Your task to perform on an android device: change your default location settings in chrome Image 0: 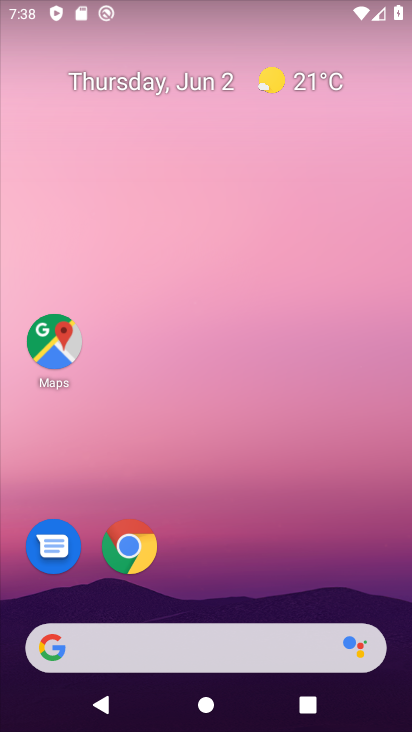
Step 0: drag from (339, 565) to (350, 242)
Your task to perform on an android device: change your default location settings in chrome Image 1: 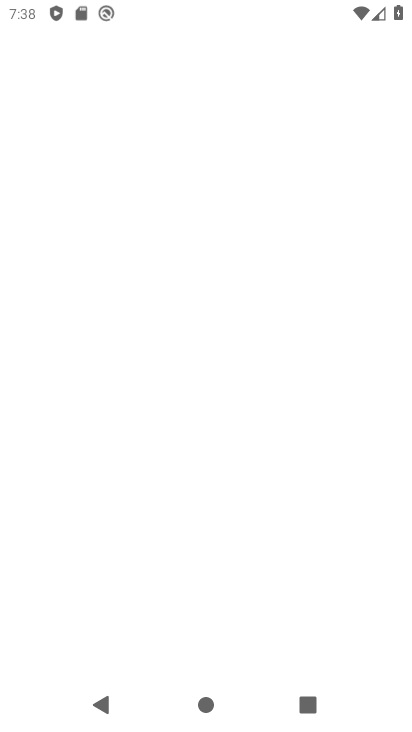
Step 1: press home button
Your task to perform on an android device: change your default location settings in chrome Image 2: 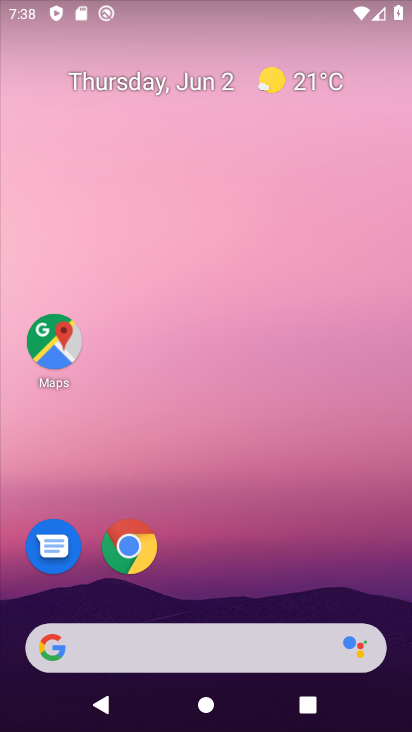
Step 2: drag from (341, 401) to (353, 94)
Your task to perform on an android device: change your default location settings in chrome Image 3: 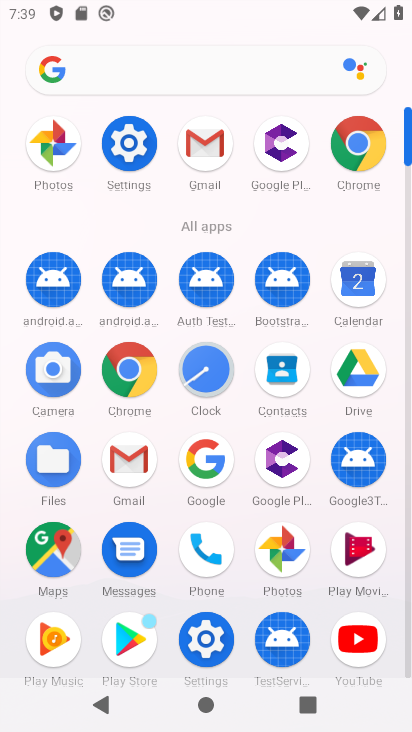
Step 3: click (139, 386)
Your task to perform on an android device: change your default location settings in chrome Image 4: 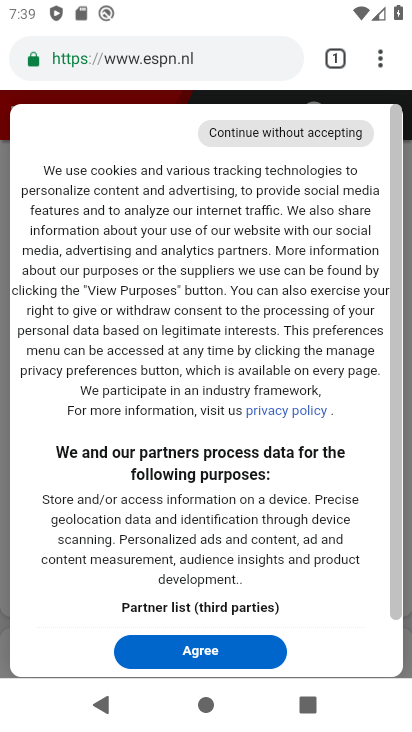
Step 4: drag from (386, 75) to (256, 573)
Your task to perform on an android device: change your default location settings in chrome Image 5: 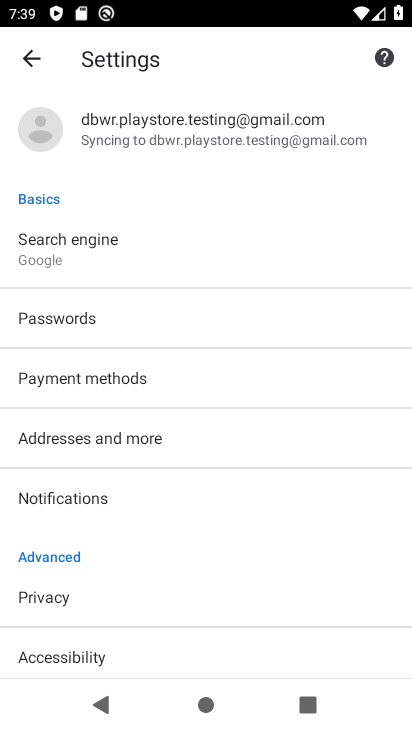
Step 5: drag from (236, 596) to (299, 338)
Your task to perform on an android device: change your default location settings in chrome Image 6: 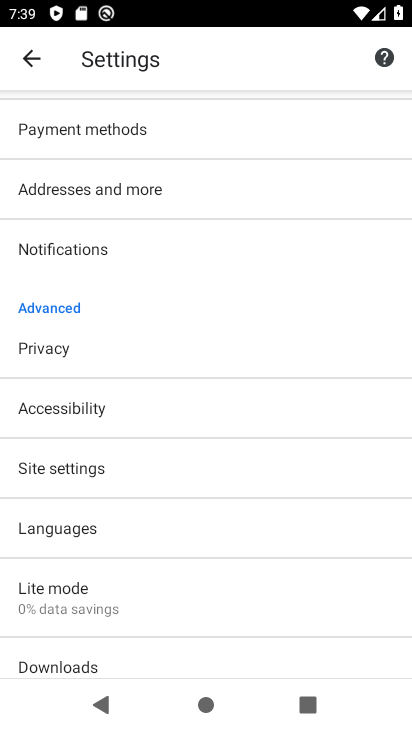
Step 6: click (151, 477)
Your task to perform on an android device: change your default location settings in chrome Image 7: 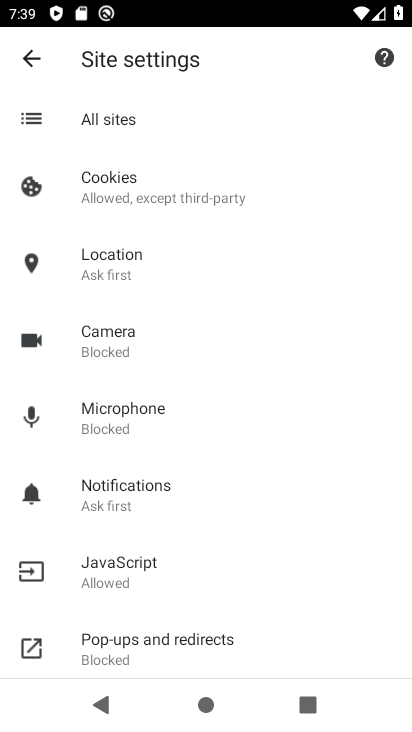
Step 7: click (159, 271)
Your task to perform on an android device: change your default location settings in chrome Image 8: 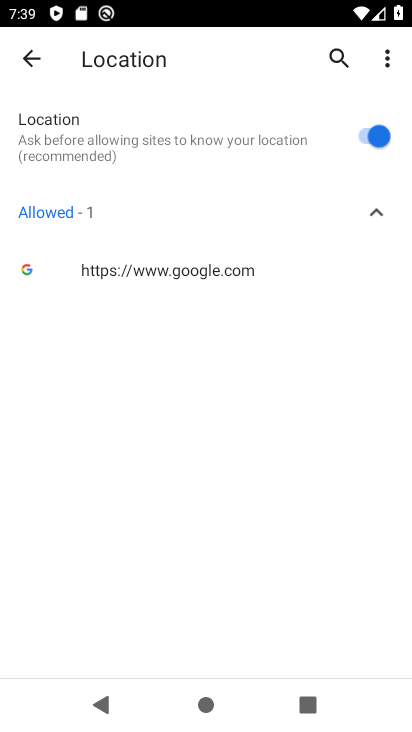
Step 8: click (368, 142)
Your task to perform on an android device: change your default location settings in chrome Image 9: 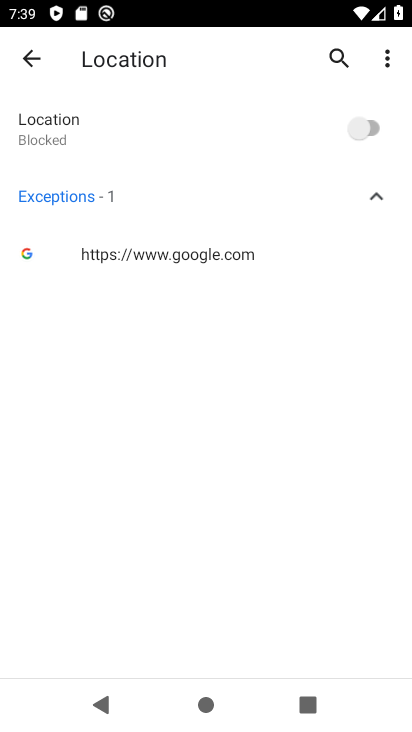
Step 9: task complete